Your task to perform on an android device: toggle priority inbox in the gmail app Image 0: 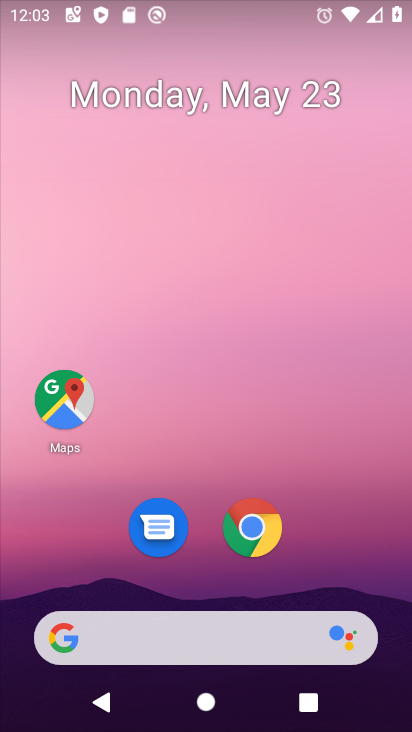
Step 0: drag from (374, 566) to (307, 116)
Your task to perform on an android device: toggle priority inbox in the gmail app Image 1: 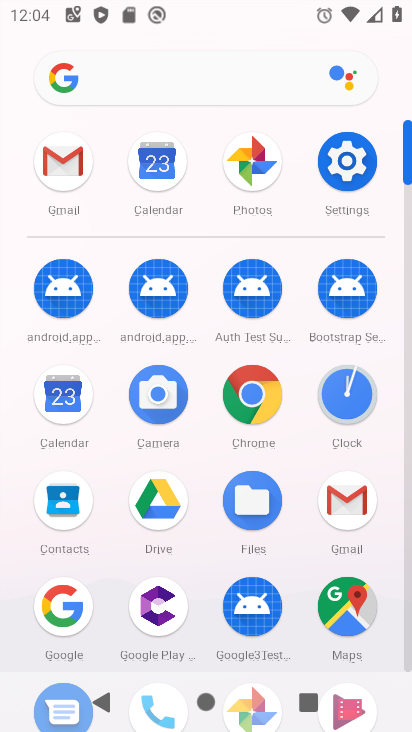
Step 1: click (51, 194)
Your task to perform on an android device: toggle priority inbox in the gmail app Image 2: 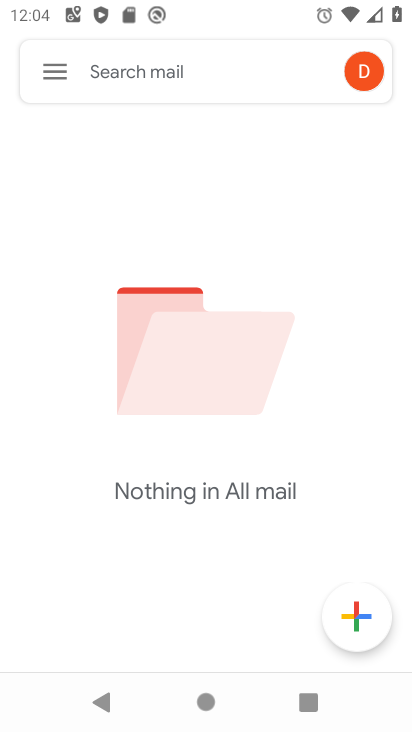
Step 2: task complete